Your task to perform on an android device: turn on bluetooth scan Image 0: 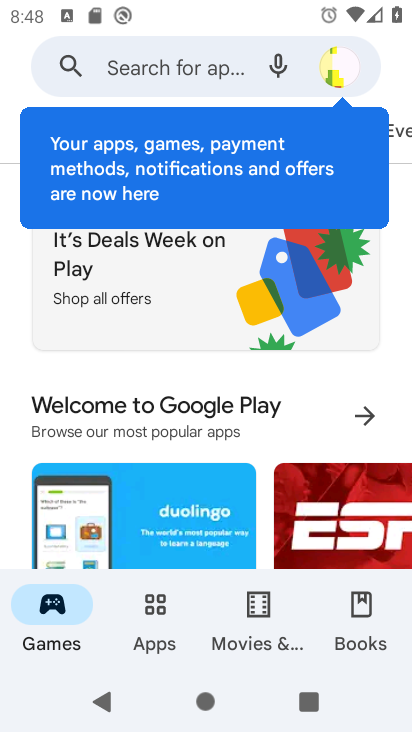
Step 0: press home button
Your task to perform on an android device: turn on bluetooth scan Image 1: 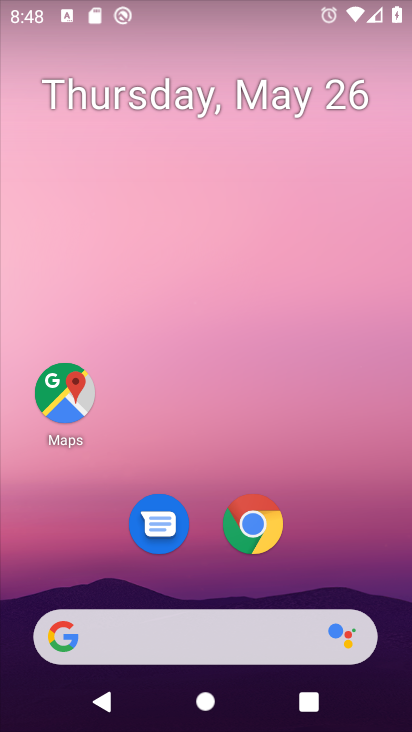
Step 1: drag from (205, 470) to (236, 44)
Your task to perform on an android device: turn on bluetooth scan Image 2: 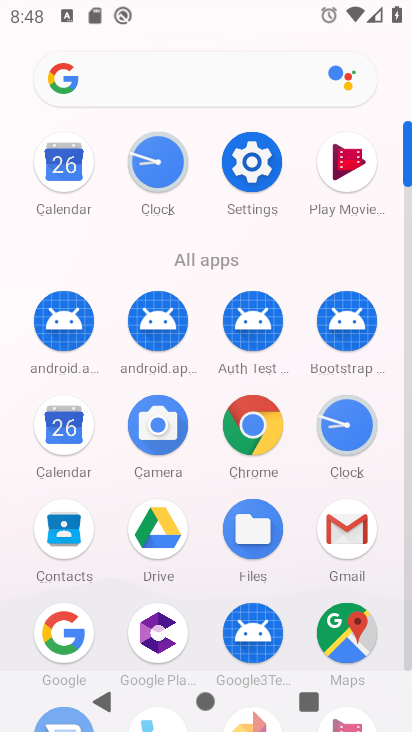
Step 2: click (256, 159)
Your task to perform on an android device: turn on bluetooth scan Image 3: 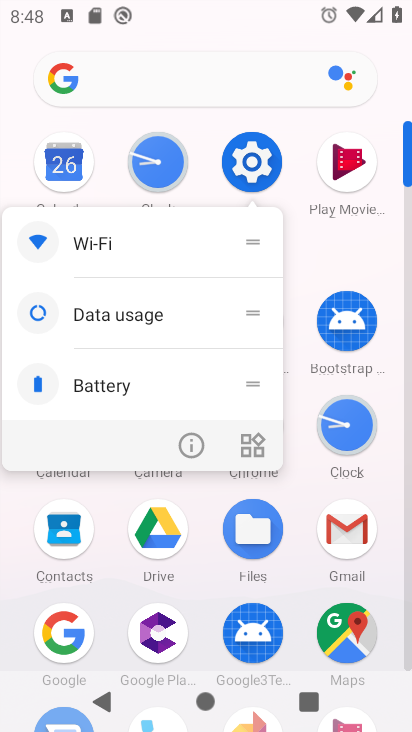
Step 3: click (255, 148)
Your task to perform on an android device: turn on bluetooth scan Image 4: 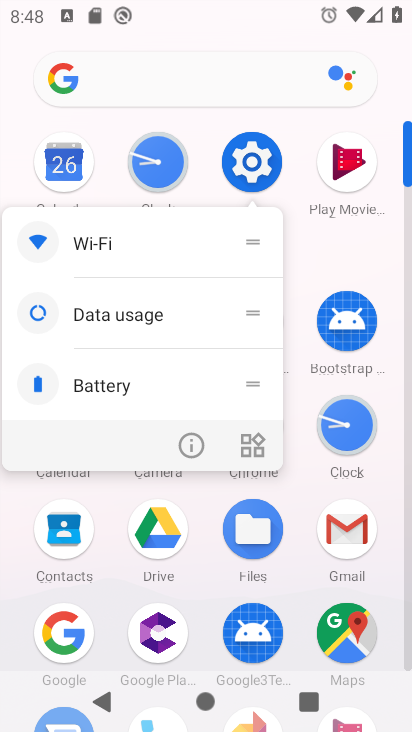
Step 4: click (237, 161)
Your task to perform on an android device: turn on bluetooth scan Image 5: 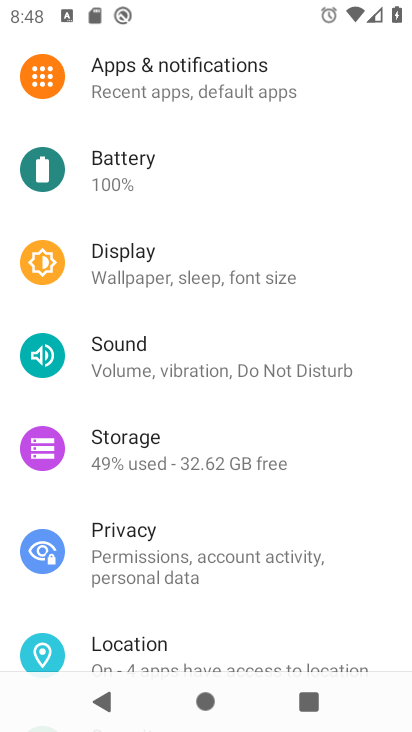
Step 5: click (142, 639)
Your task to perform on an android device: turn on bluetooth scan Image 6: 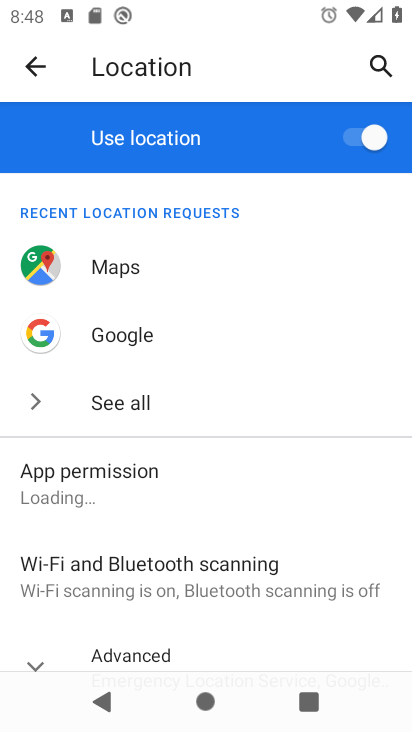
Step 6: click (235, 573)
Your task to perform on an android device: turn on bluetooth scan Image 7: 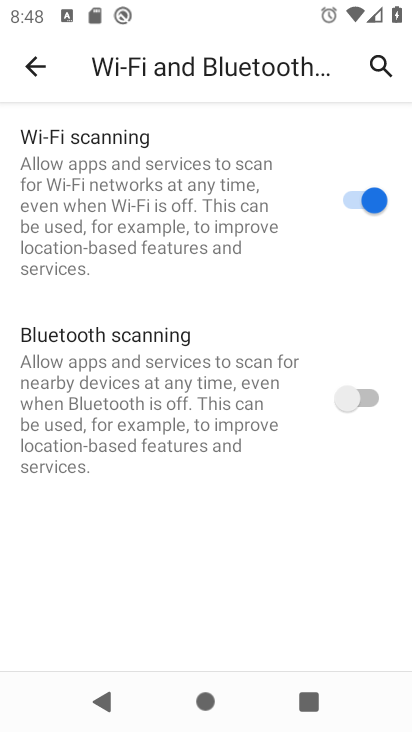
Step 7: click (365, 393)
Your task to perform on an android device: turn on bluetooth scan Image 8: 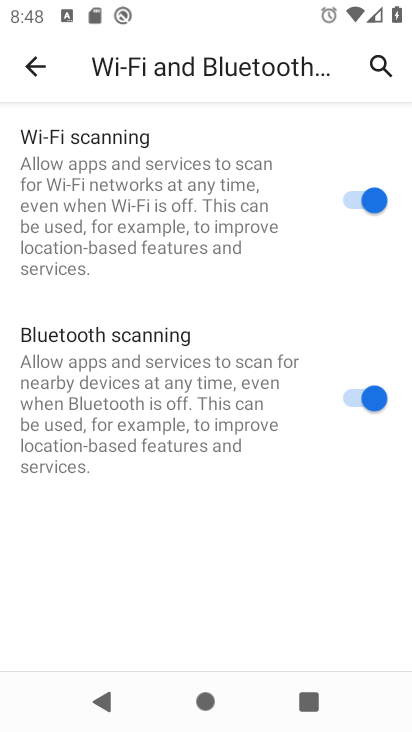
Step 8: task complete